Your task to perform on an android device: What's the weather going to be tomorrow? Image 0: 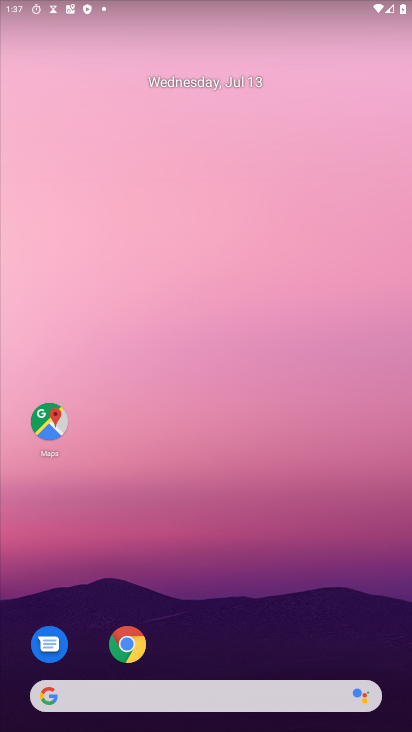
Step 0: press home button
Your task to perform on an android device: What's the weather going to be tomorrow? Image 1: 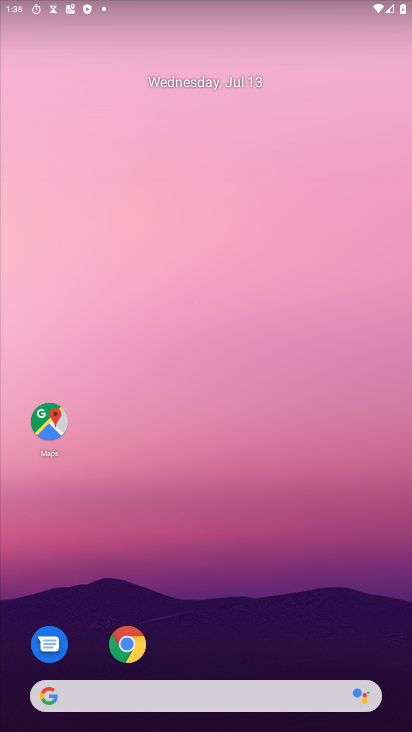
Step 1: click (267, 700)
Your task to perform on an android device: What's the weather going to be tomorrow? Image 2: 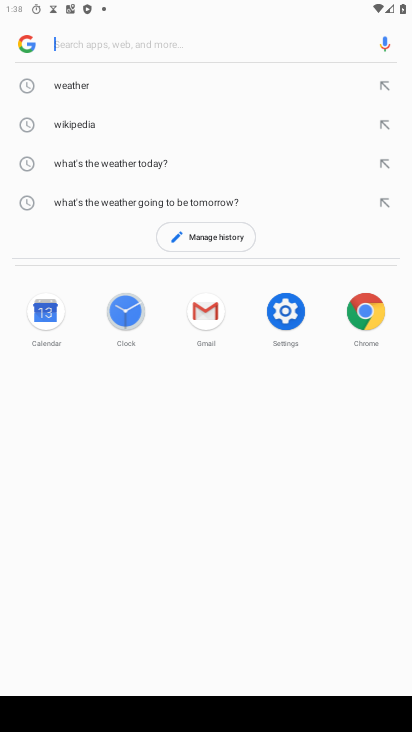
Step 2: type "What's the weather going to be tomorrow?"
Your task to perform on an android device: What's the weather going to be tomorrow? Image 3: 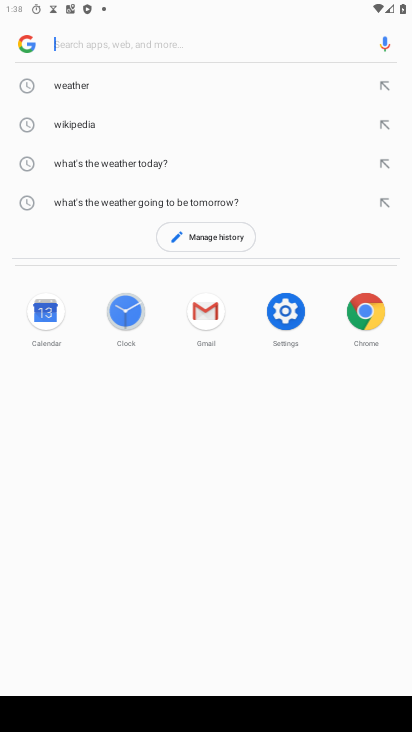
Step 3: click (133, 39)
Your task to perform on an android device: What's the weather going to be tomorrow? Image 4: 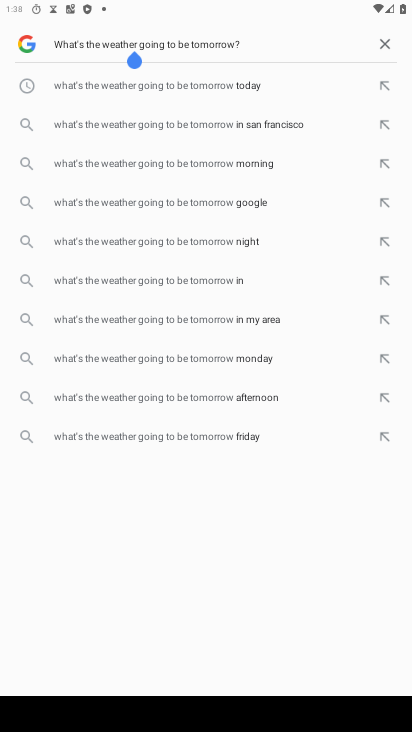
Step 4: press enter
Your task to perform on an android device: What's the weather going to be tomorrow? Image 5: 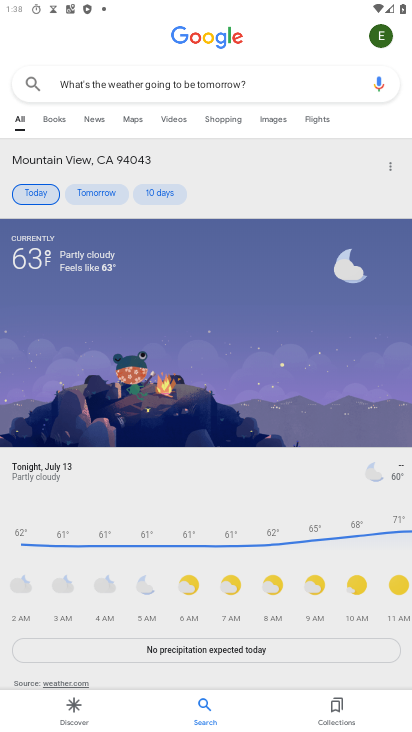
Step 5: task complete